Your task to perform on an android device: Open my contact list Image 0: 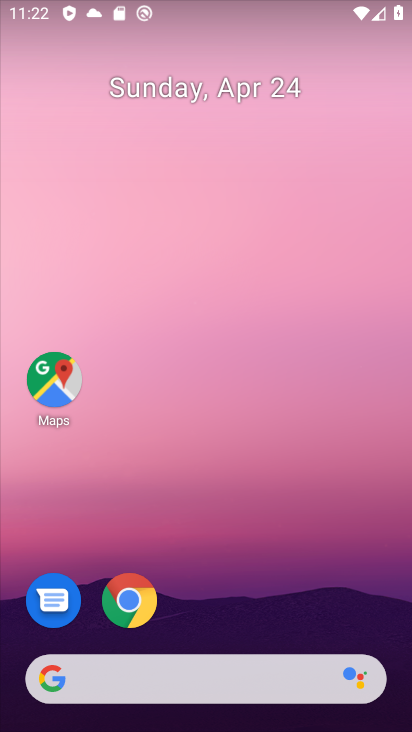
Step 0: drag from (239, 523) to (280, 0)
Your task to perform on an android device: Open my contact list Image 1: 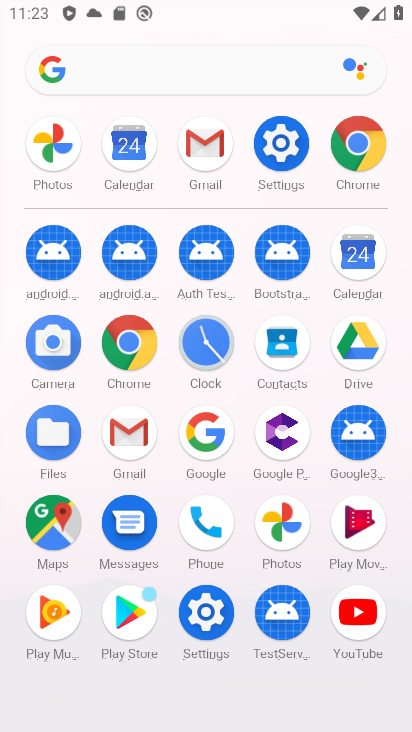
Step 1: click (282, 349)
Your task to perform on an android device: Open my contact list Image 2: 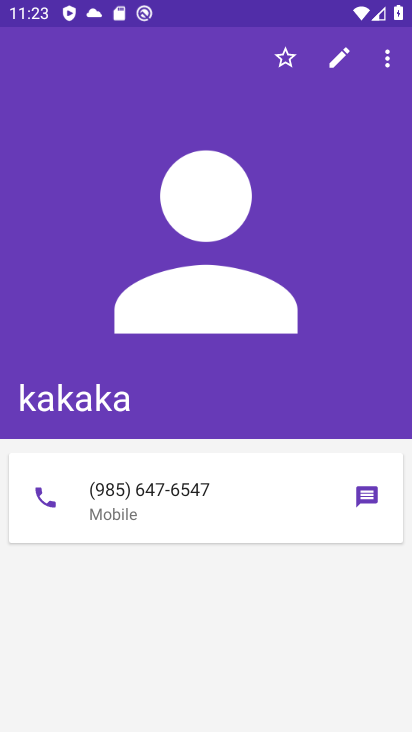
Step 2: task complete